Your task to perform on an android device: Open Yahoo.com Image 0: 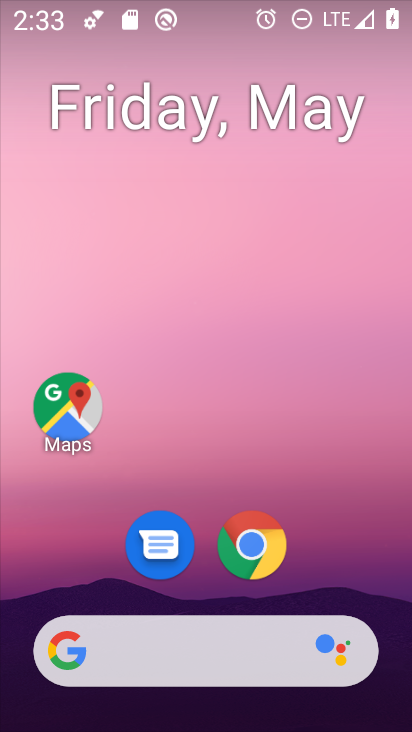
Step 0: click (259, 544)
Your task to perform on an android device: Open Yahoo.com Image 1: 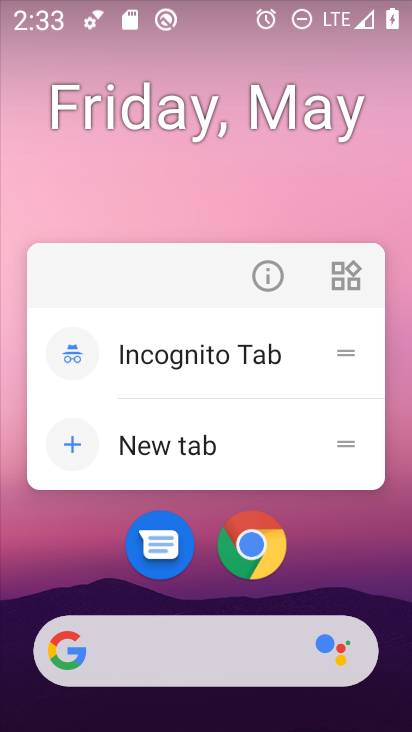
Step 1: click (235, 533)
Your task to perform on an android device: Open Yahoo.com Image 2: 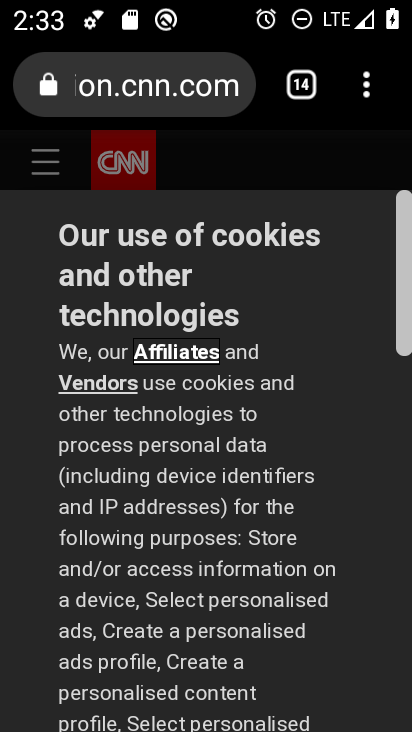
Step 2: click (361, 84)
Your task to perform on an android device: Open Yahoo.com Image 3: 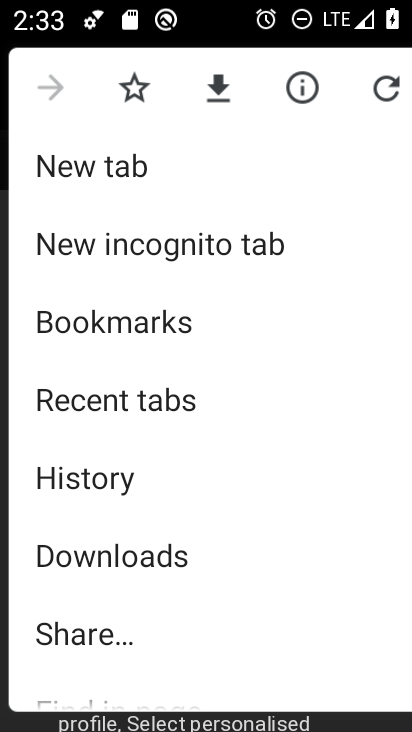
Step 3: click (154, 165)
Your task to perform on an android device: Open Yahoo.com Image 4: 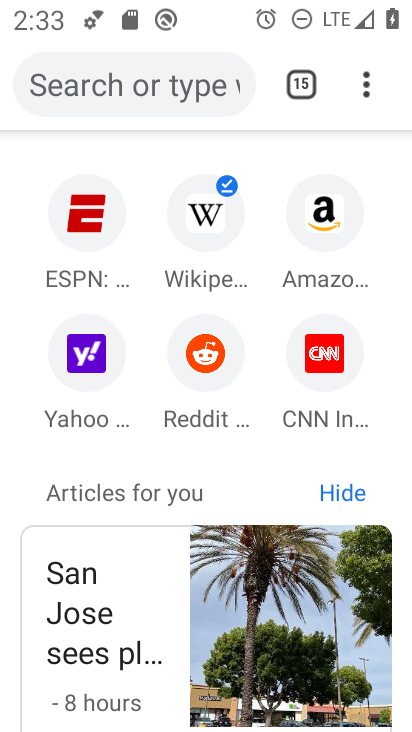
Step 4: click (88, 358)
Your task to perform on an android device: Open Yahoo.com Image 5: 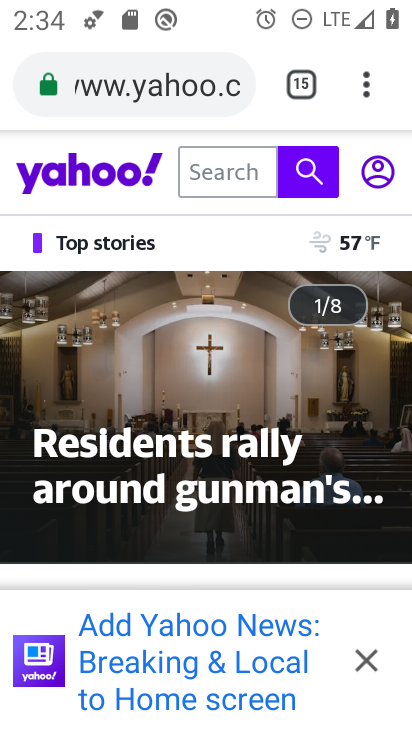
Step 5: task complete